Your task to perform on an android device: check the backup settings in the google photos Image 0: 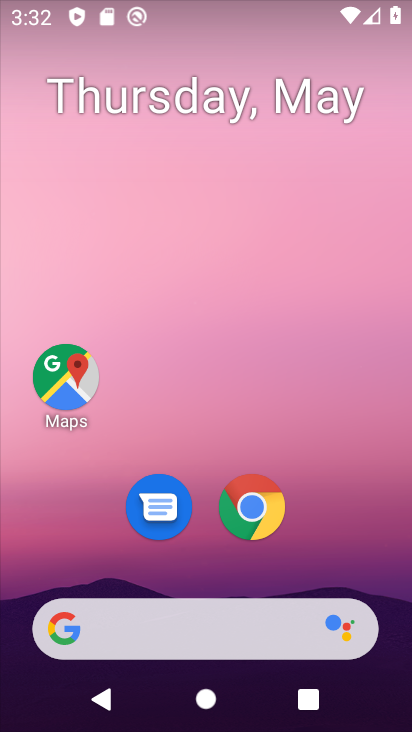
Step 0: drag from (356, 650) to (269, 201)
Your task to perform on an android device: check the backup settings in the google photos Image 1: 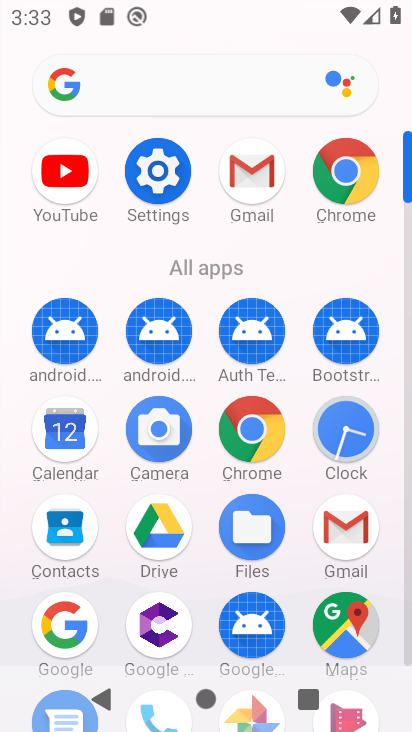
Step 1: drag from (280, 510) to (303, 400)
Your task to perform on an android device: check the backup settings in the google photos Image 2: 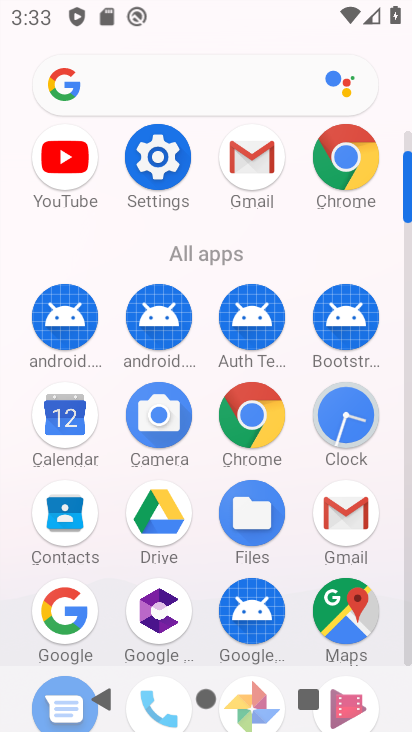
Step 2: drag from (280, 527) to (270, 226)
Your task to perform on an android device: check the backup settings in the google photos Image 3: 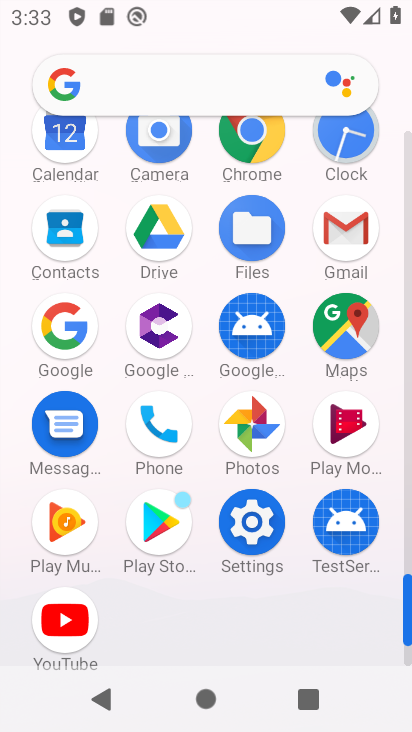
Step 3: drag from (311, 371) to (320, 260)
Your task to perform on an android device: check the backup settings in the google photos Image 4: 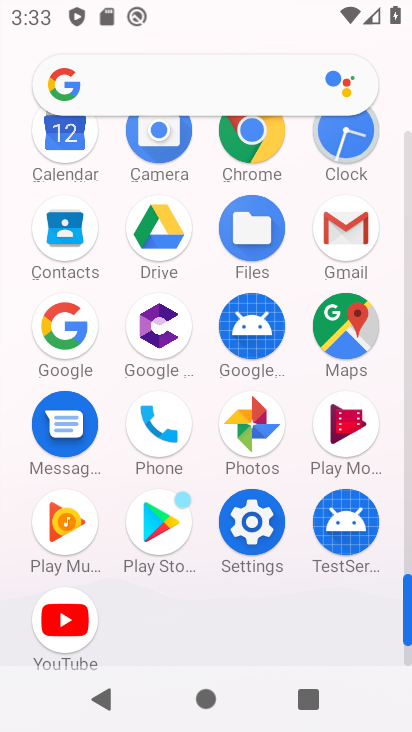
Step 4: click (260, 437)
Your task to perform on an android device: check the backup settings in the google photos Image 5: 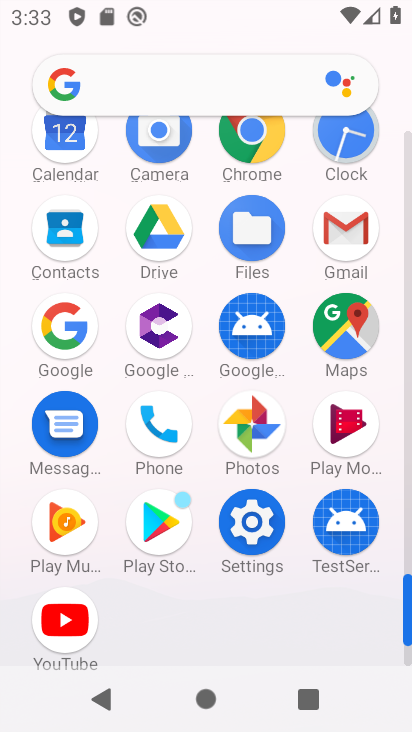
Step 5: click (260, 435)
Your task to perform on an android device: check the backup settings in the google photos Image 6: 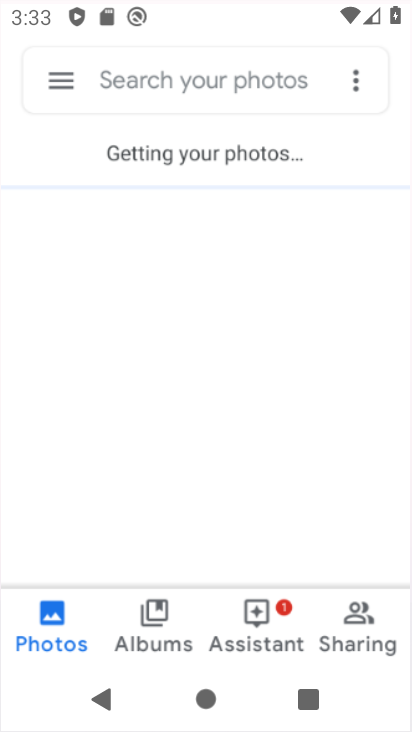
Step 6: click (261, 432)
Your task to perform on an android device: check the backup settings in the google photos Image 7: 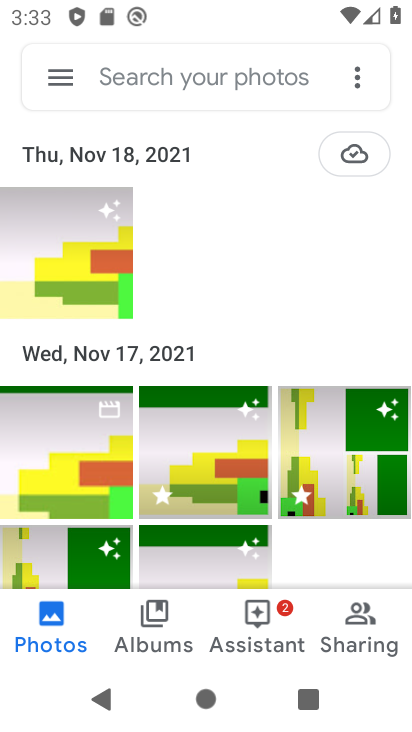
Step 7: click (353, 154)
Your task to perform on an android device: check the backup settings in the google photos Image 8: 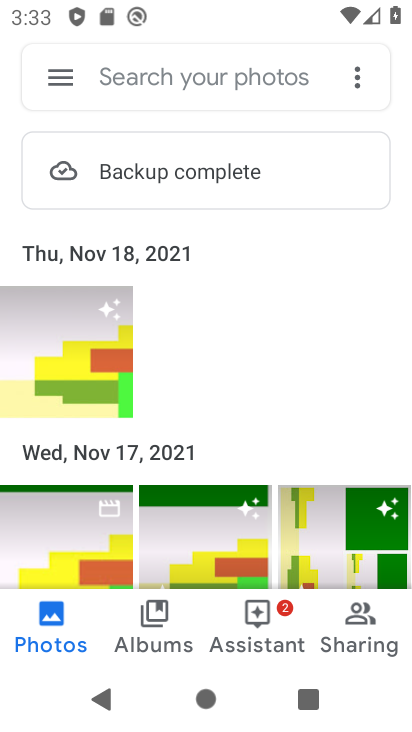
Step 8: click (351, 156)
Your task to perform on an android device: check the backup settings in the google photos Image 9: 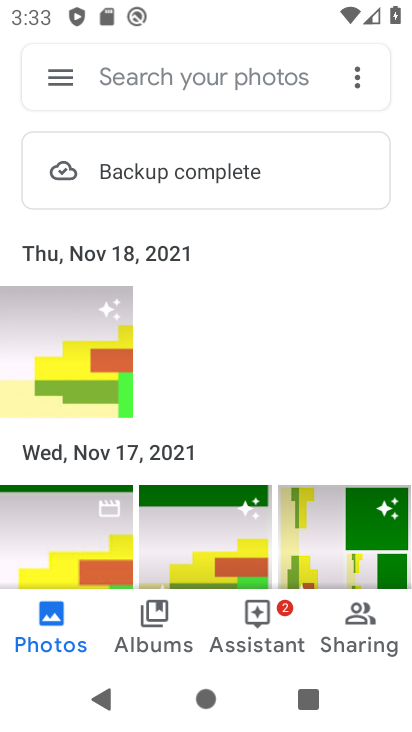
Step 9: click (72, 170)
Your task to perform on an android device: check the backup settings in the google photos Image 10: 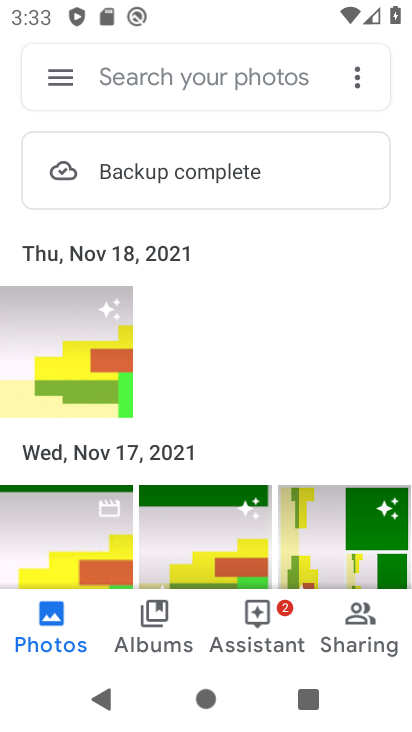
Step 10: task complete